Your task to perform on an android device: turn off location Image 0: 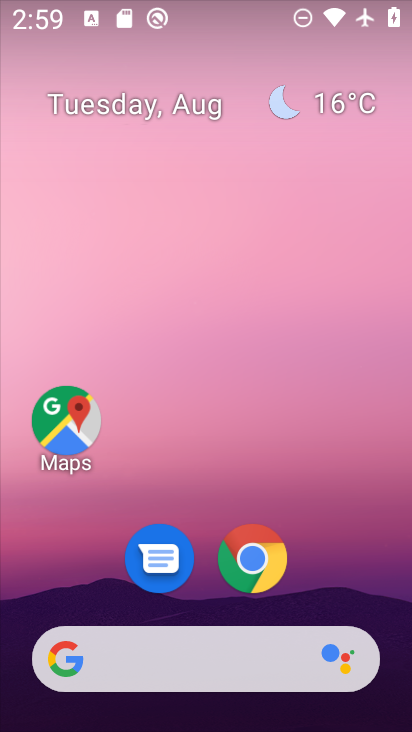
Step 0: drag from (221, 453) to (224, 18)
Your task to perform on an android device: turn off location Image 1: 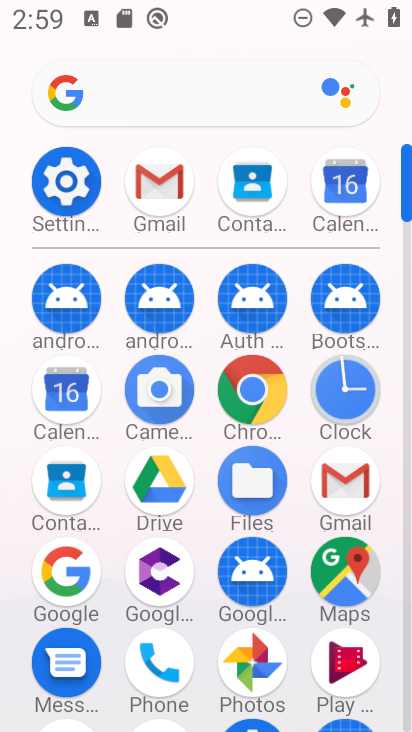
Step 1: click (45, 187)
Your task to perform on an android device: turn off location Image 2: 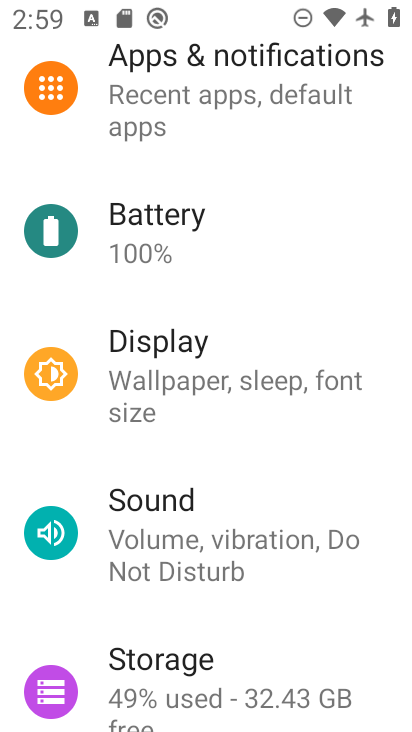
Step 2: drag from (236, 591) to (266, 181)
Your task to perform on an android device: turn off location Image 3: 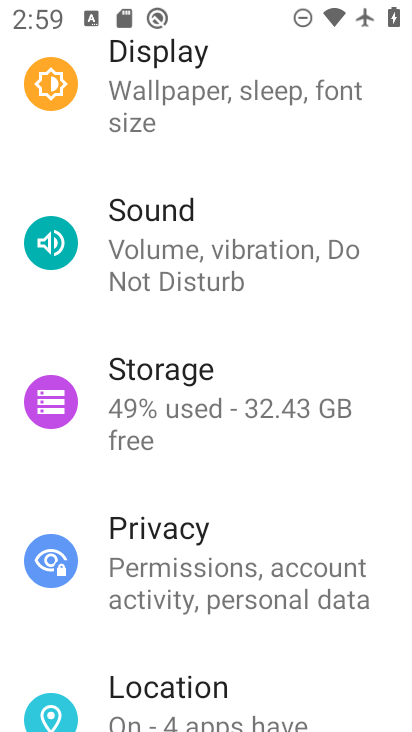
Step 3: click (172, 684)
Your task to perform on an android device: turn off location Image 4: 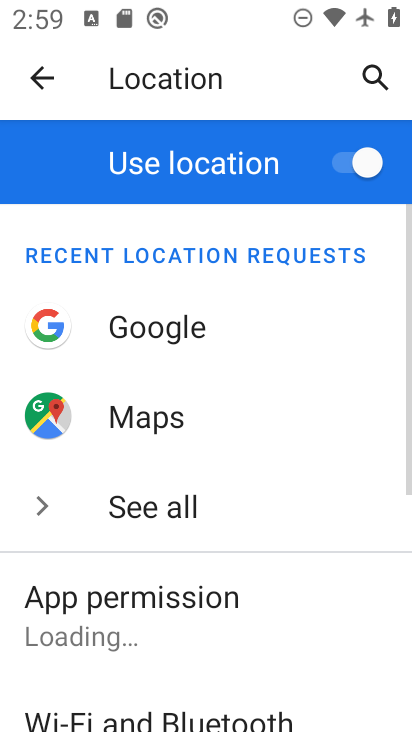
Step 4: click (337, 156)
Your task to perform on an android device: turn off location Image 5: 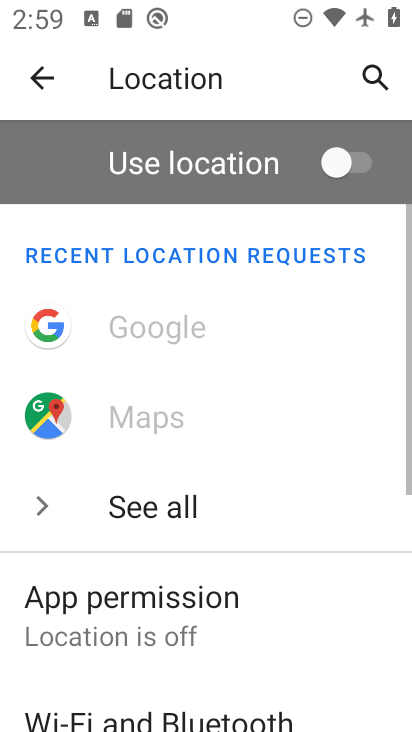
Step 5: task complete